Your task to perform on an android device: Open wifi settings Image 0: 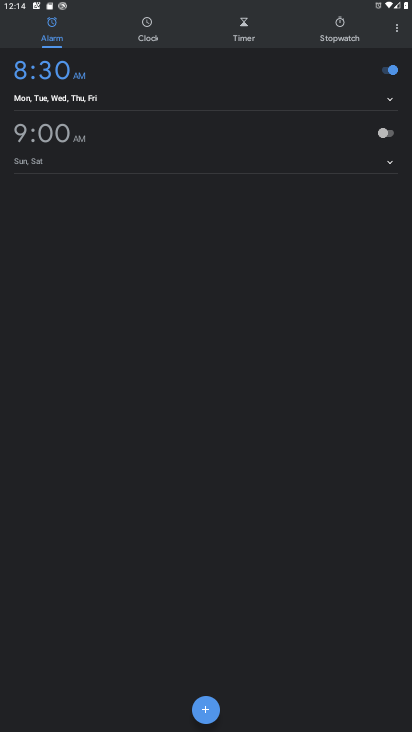
Step 0: press home button
Your task to perform on an android device: Open wifi settings Image 1: 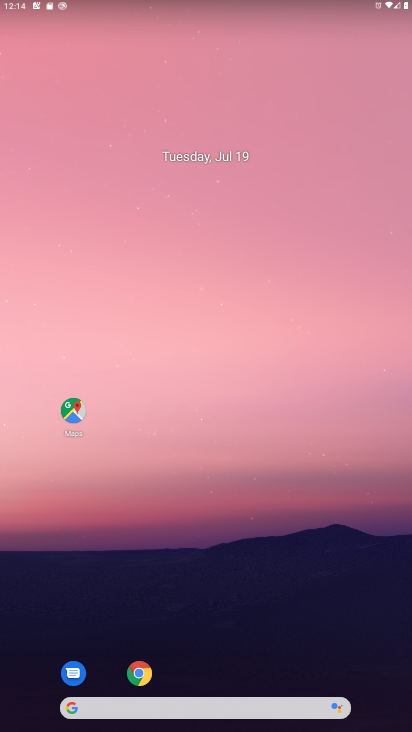
Step 1: drag from (223, 645) to (231, 229)
Your task to perform on an android device: Open wifi settings Image 2: 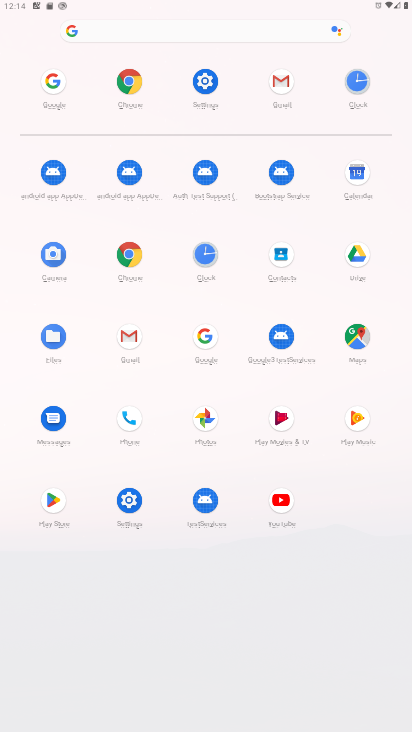
Step 2: click (197, 103)
Your task to perform on an android device: Open wifi settings Image 3: 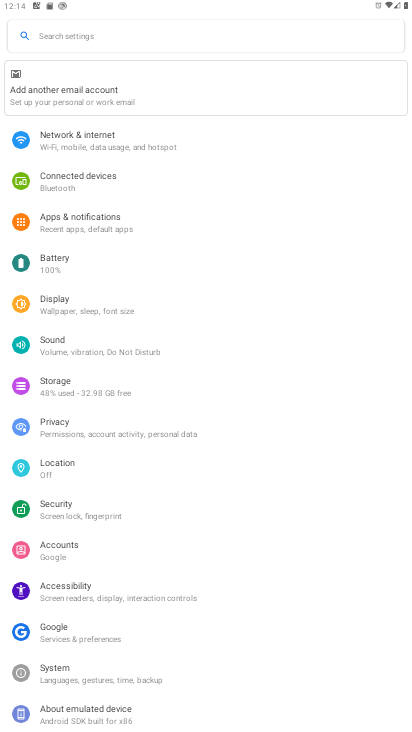
Step 3: click (133, 151)
Your task to perform on an android device: Open wifi settings Image 4: 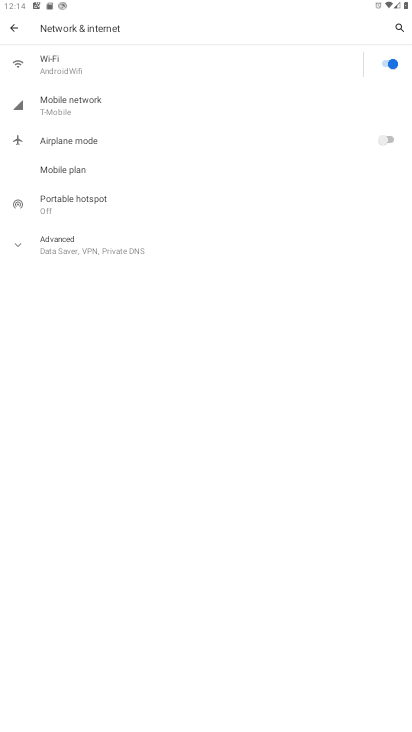
Step 4: click (98, 76)
Your task to perform on an android device: Open wifi settings Image 5: 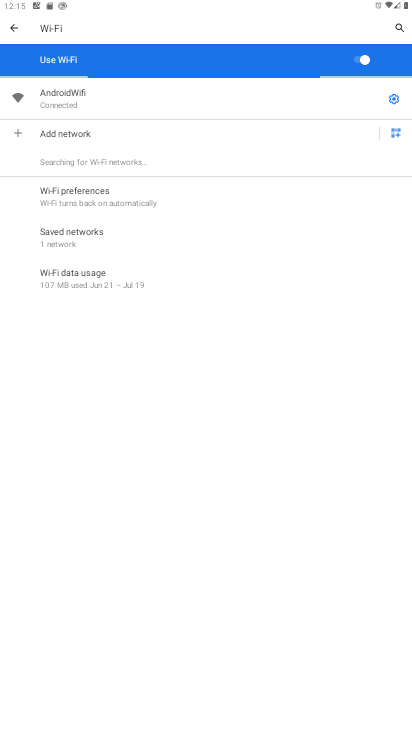
Step 5: task complete